Your task to perform on an android device: Open Google Image 0: 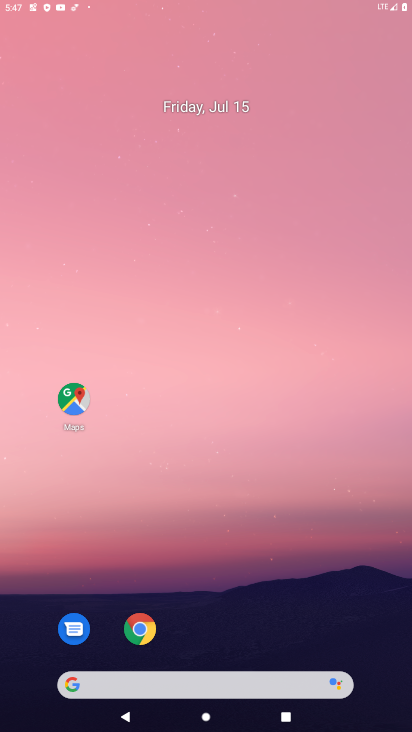
Step 0: press home button
Your task to perform on an android device: Open Google Image 1: 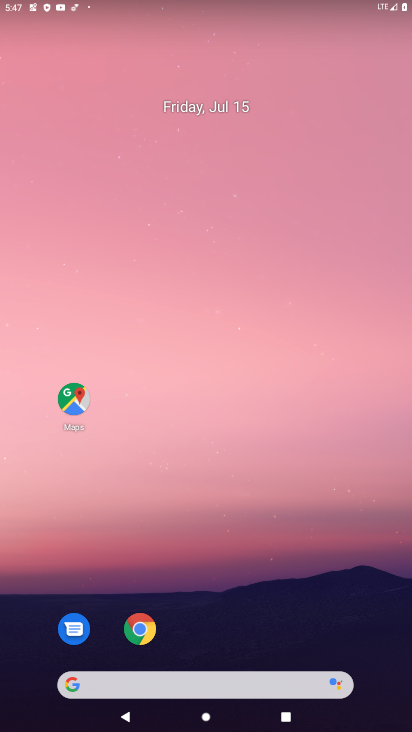
Step 1: click (68, 684)
Your task to perform on an android device: Open Google Image 2: 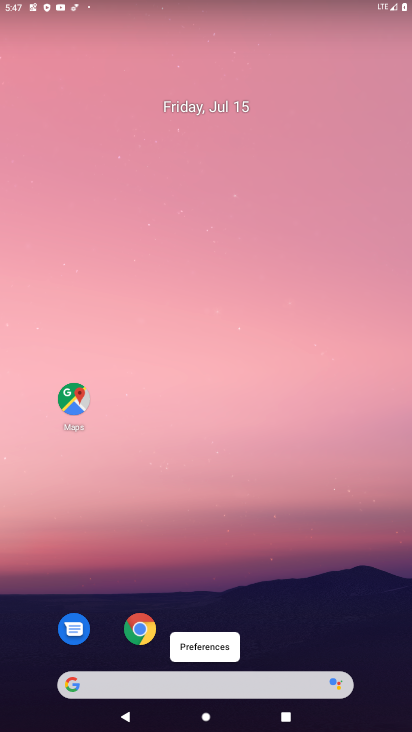
Step 2: click (68, 684)
Your task to perform on an android device: Open Google Image 3: 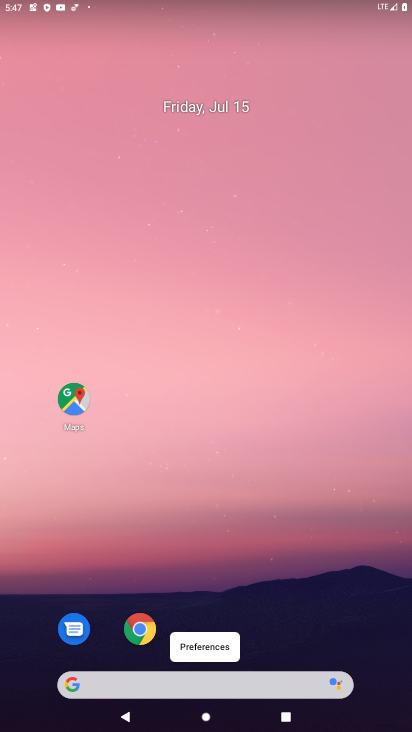
Step 3: click (73, 689)
Your task to perform on an android device: Open Google Image 4: 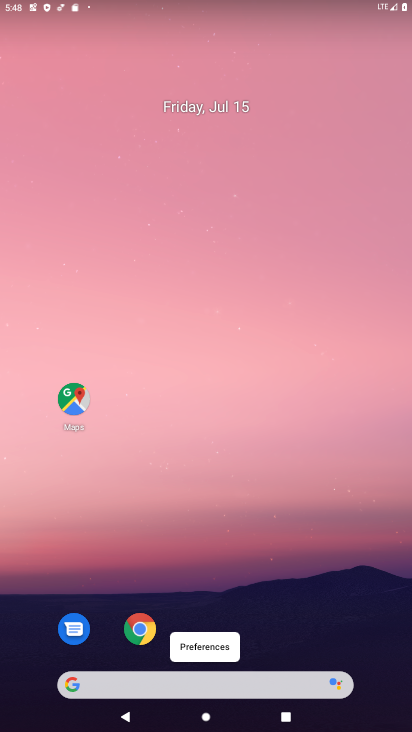
Step 4: drag from (339, 635) to (410, 106)
Your task to perform on an android device: Open Google Image 5: 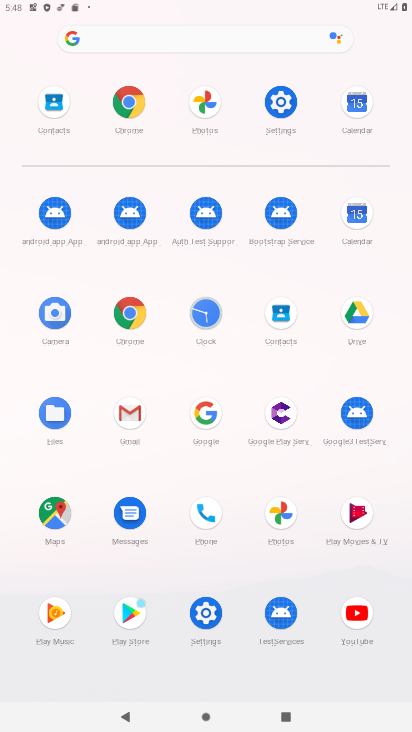
Step 5: click (206, 414)
Your task to perform on an android device: Open Google Image 6: 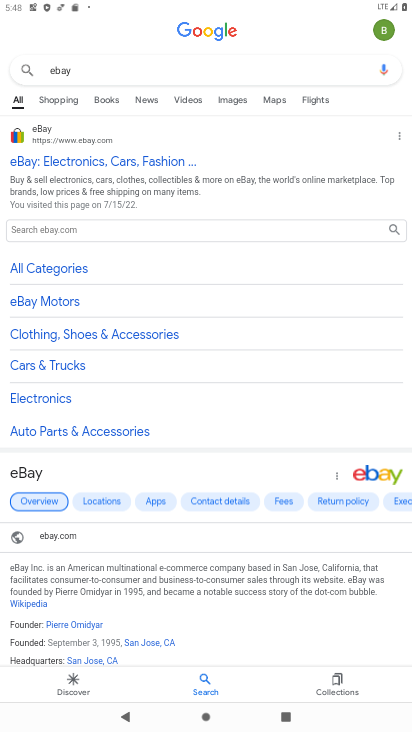
Step 6: task complete